Your task to perform on an android device: turn on the 12-hour format for clock Image 0: 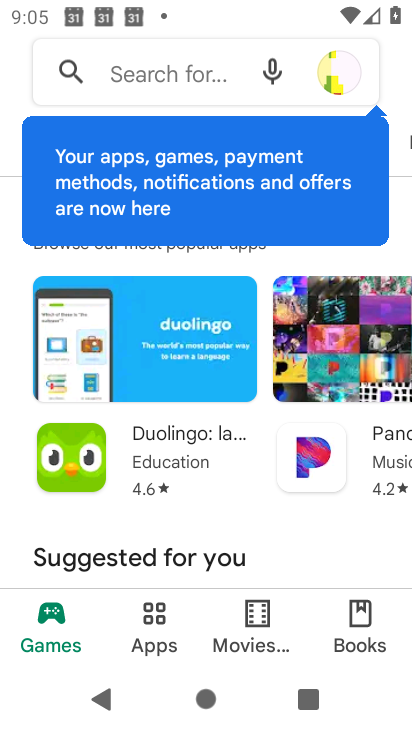
Step 0: press back button
Your task to perform on an android device: turn on the 12-hour format for clock Image 1: 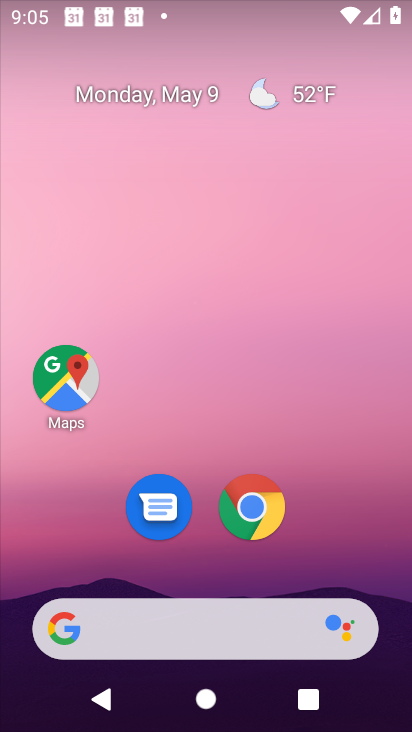
Step 1: drag from (325, 544) to (255, 205)
Your task to perform on an android device: turn on the 12-hour format for clock Image 2: 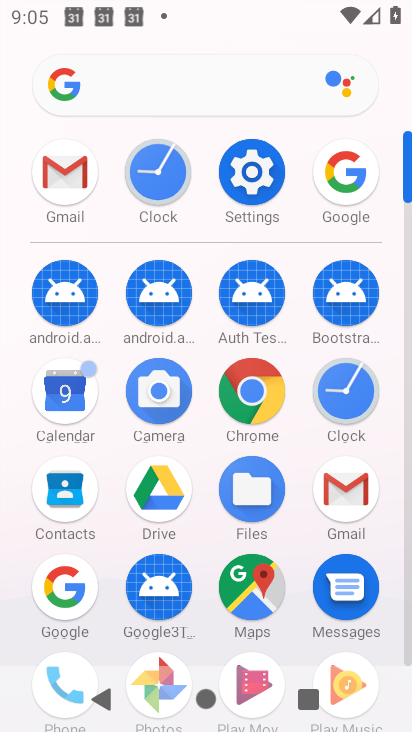
Step 2: click (159, 172)
Your task to perform on an android device: turn on the 12-hour format for clock Image 3: 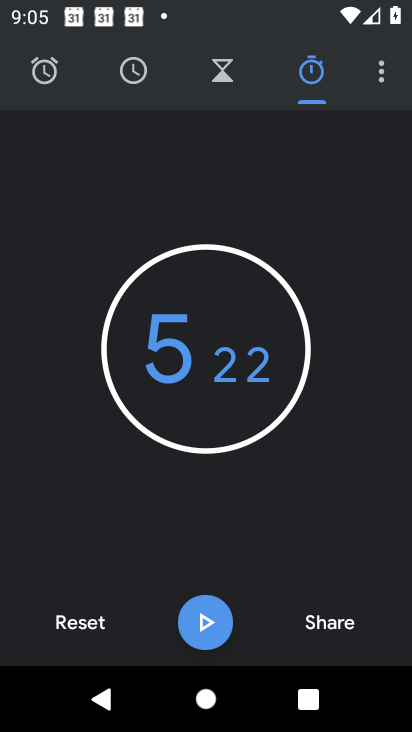
Step 3: click (383, 65)
Your task to perform on an android device: turn on the 12-hour format for clock Image 4: 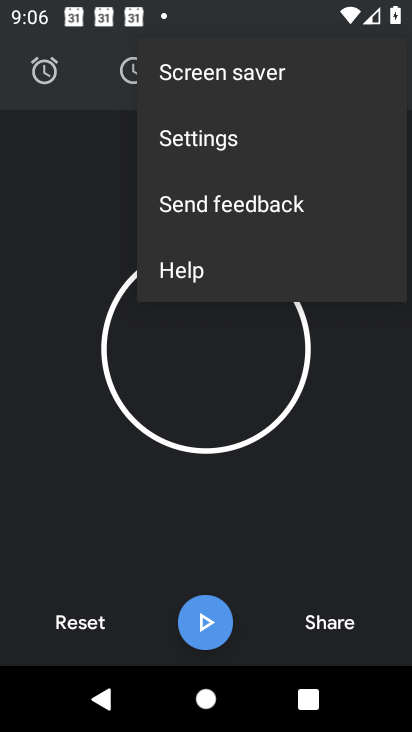
Step 4: click (224, 140)
Your task to perform on an android device: turn on the 12-hour format for clock Image 5: 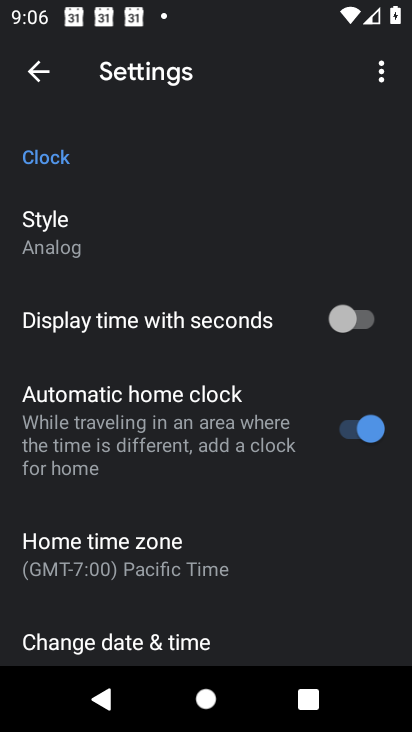
Step 5: drag from (138, 485) to (188, 383)
Your task to perform on an android device: turn on the 12-hour format for clock Image 6: 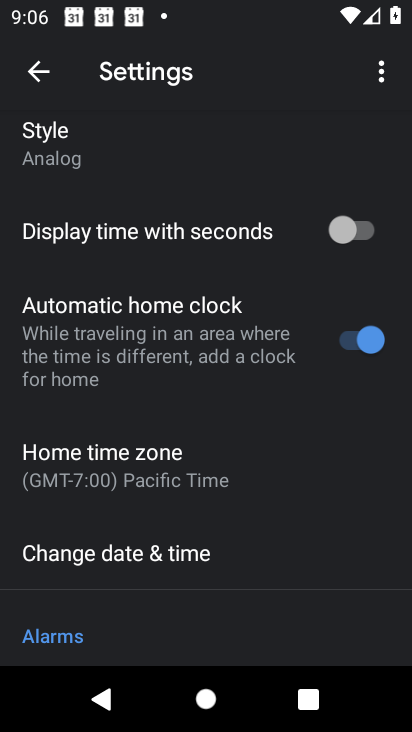
Step 6: click (148, 545)
Your task to perform on an android device: turn on the 12-hour format for clock Image 7: 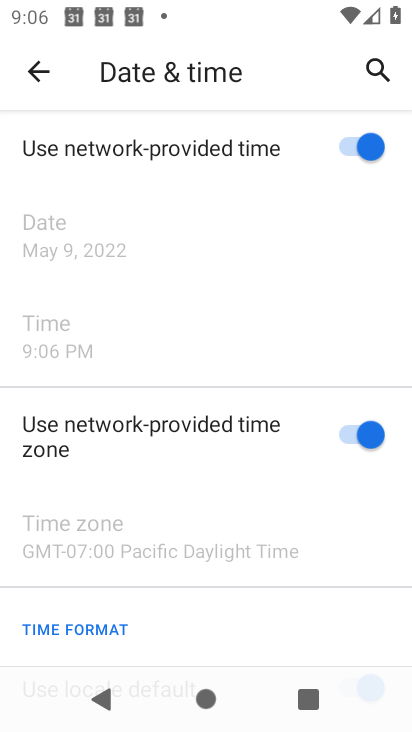
Step 7: task complete